Your task to perform on an android device: Search for apple airpods on target.com, select the first entry, and add it to the cart. Image 0: 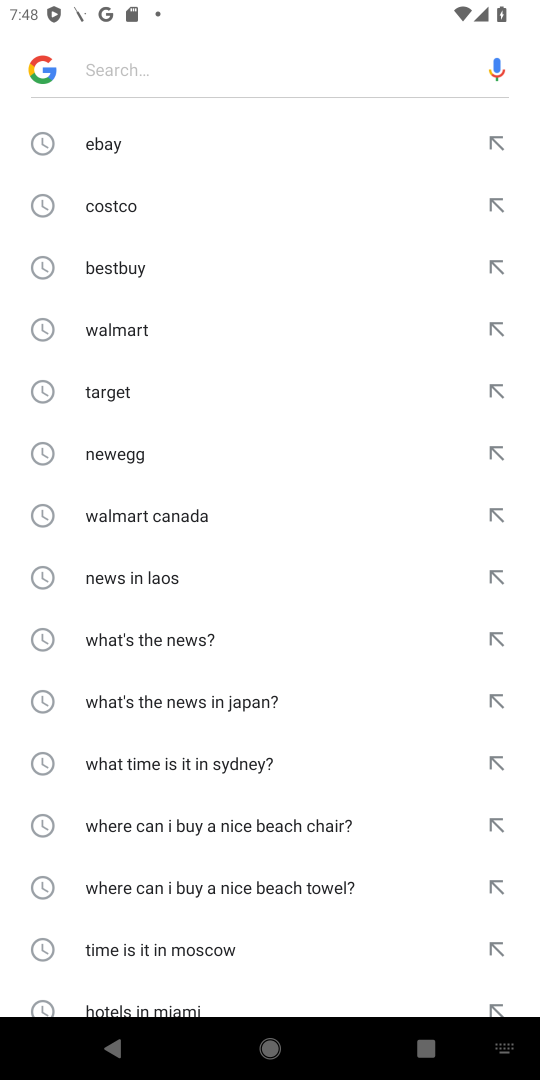
Step 0: click (115, 384)
Your task to perform on an android device: Search for apple airpods on target.com, select the first entry, and add it to the cart. Image 1: 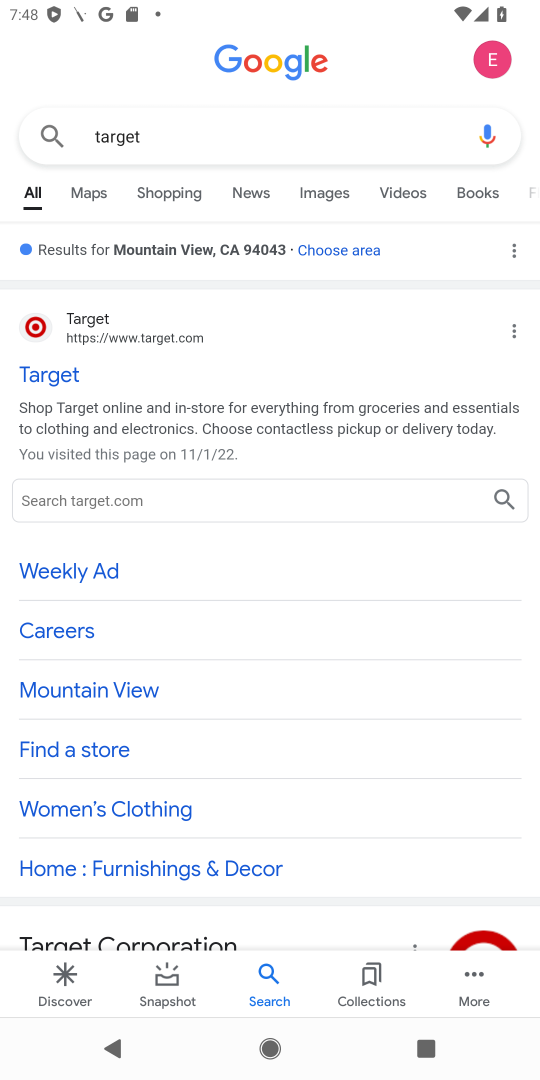
Step 1: click (50, 372)
Your task to perform on an android device: Search for apple airpods on target.com, select the first entry, and add it to the cart. Image 2: 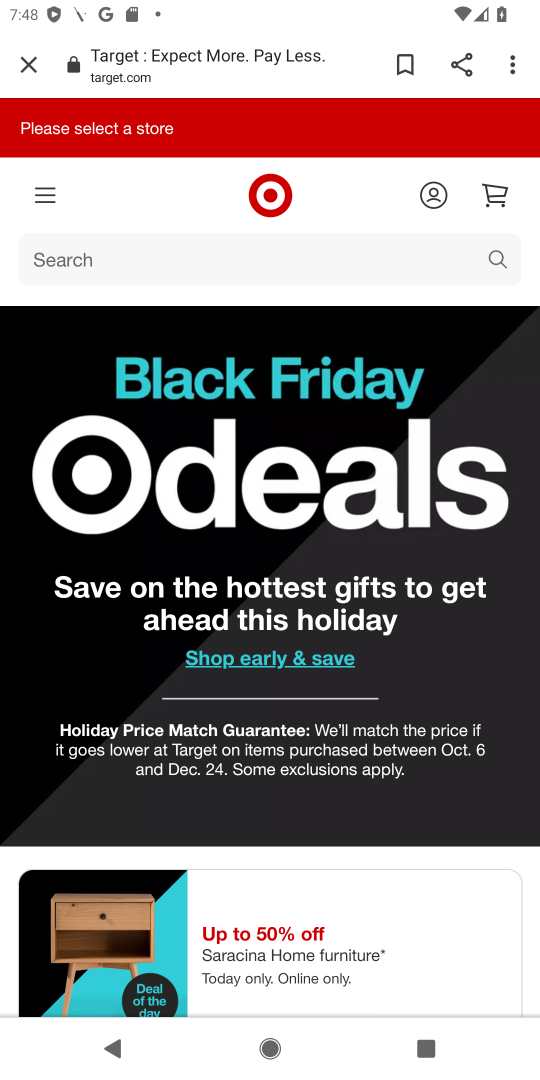
Step 2: click (148, 256)
Your task to perform on an android device: Search for apple airpods on target.com, select the first entry, and add it to the cart. Image 3: 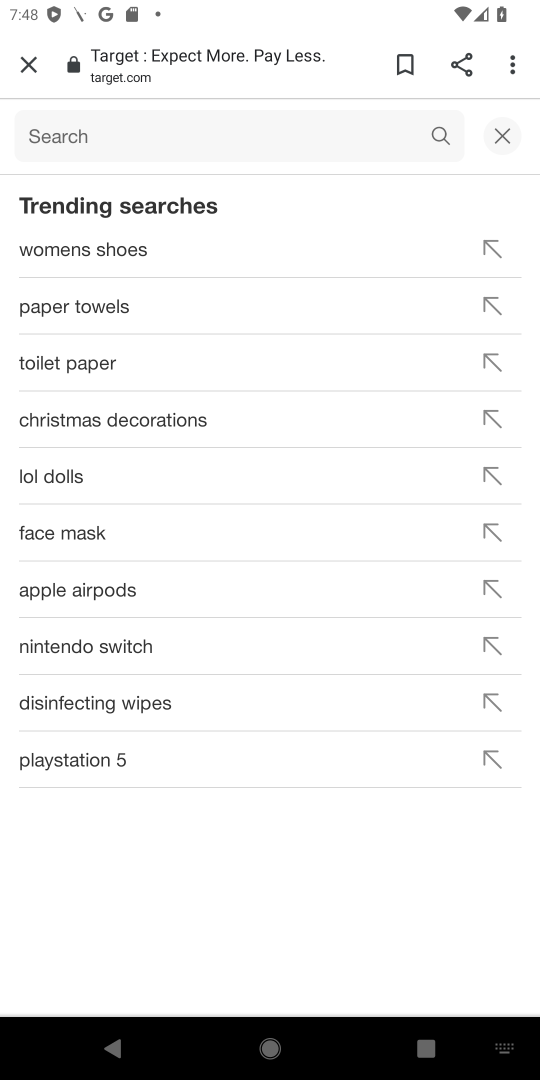
Step 3: click (41, 129)
Your task to perform on an android device: Search for apple airpods on target.com, select the first entry, and add it to the cart. Image 4: 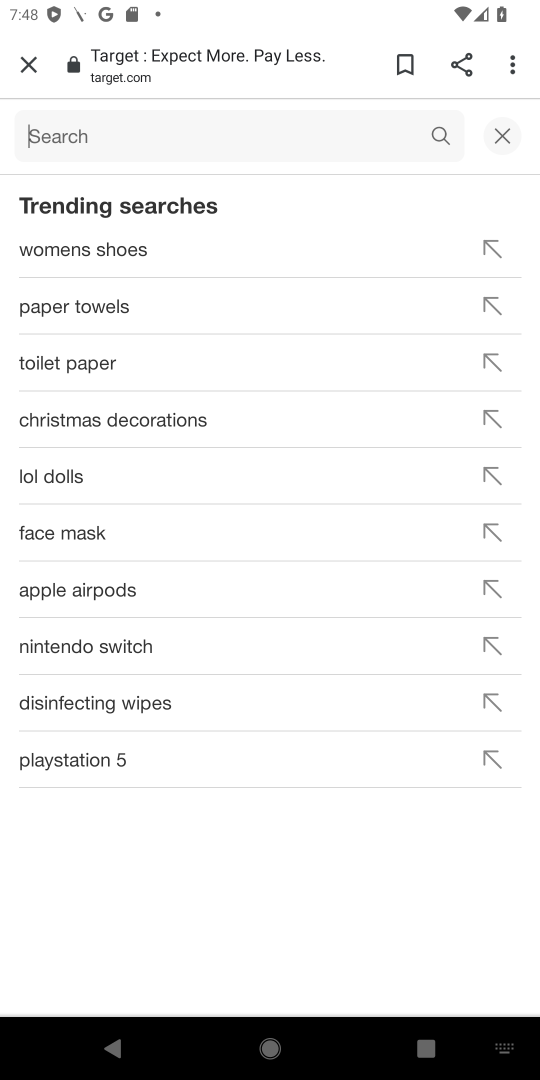
Step 4: type " apple airpods"
Your task to perform on an android device: Search for apple airpods on target.com, select the first entry, and add it to the cart. Image 5: 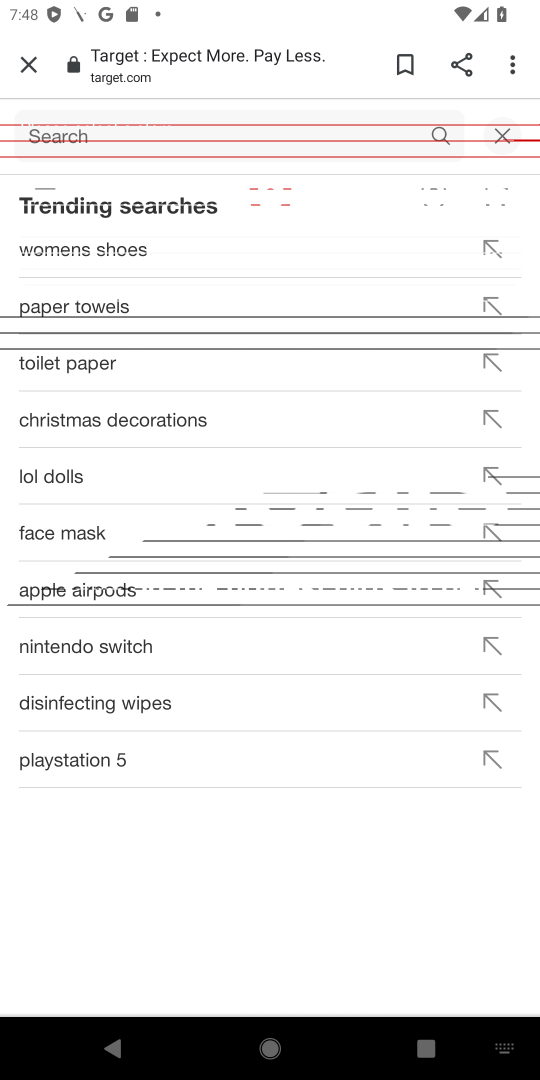
Step 5: press enter
Your task to perform on an android device: Search for apple airpods on target.com, select the first entry, and add it to the cart. Image 6: 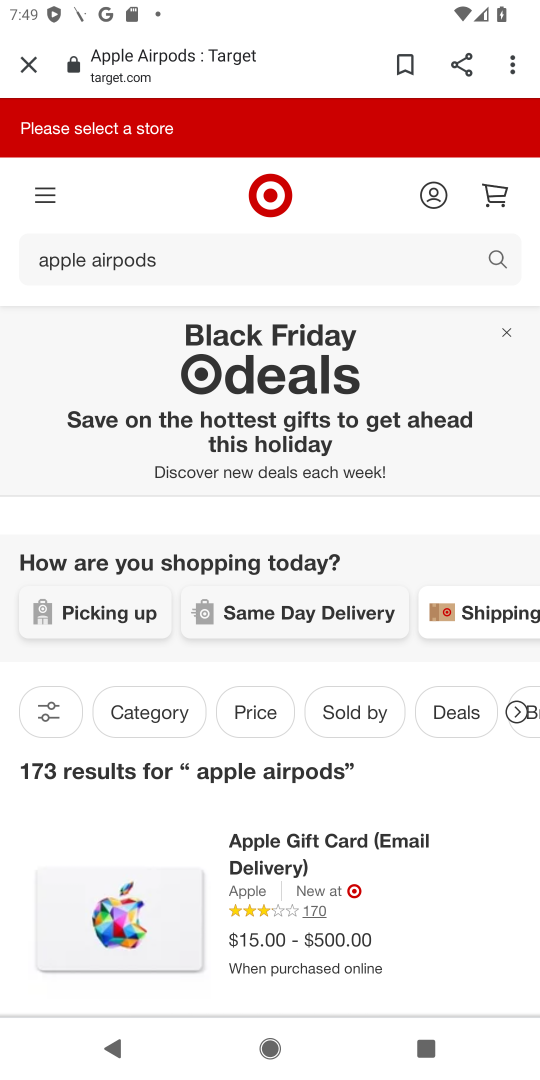
Step 6: task complete